Your task to perform on an android device: turn vacation reply on in the gmail app Image 0: 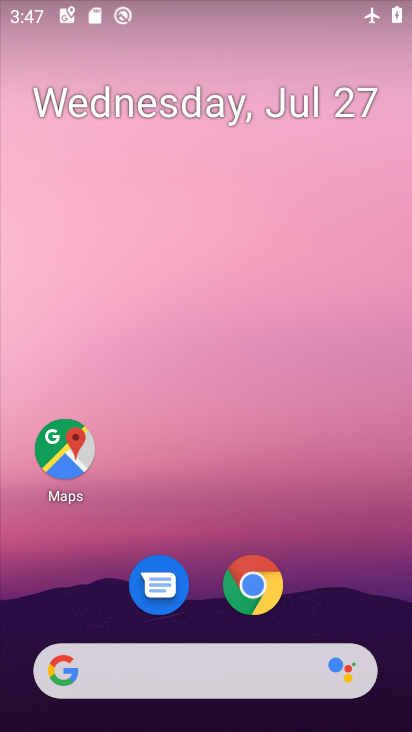
Step 0: drag from (326, 575) to (314, 365)
Your task to perform on an android device: turn vacation reply on in the gmail app Image 1: 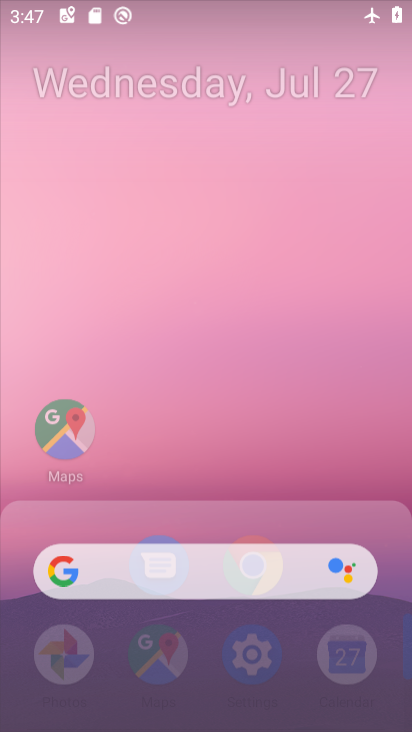
Step 1: drag from (329, 66) to (273, 13)
Your task to perform on an android device: turn vacation reply on in the gmail app Image 2: 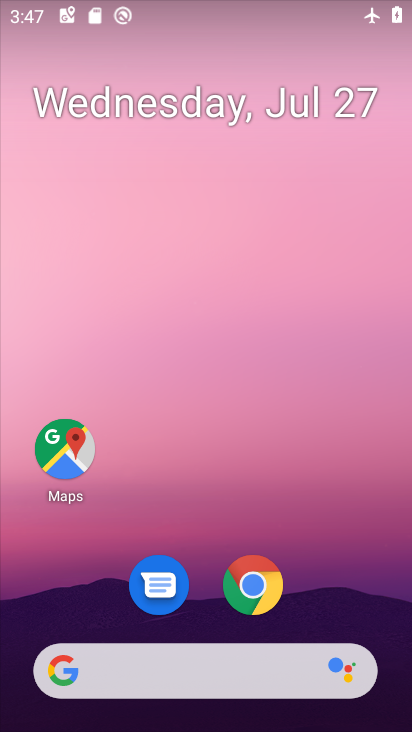
Step 2: drag from (284, 481) to (328, 32)
Your task to perform on an android device: turn vacation reply on in the gmail app Image 3: 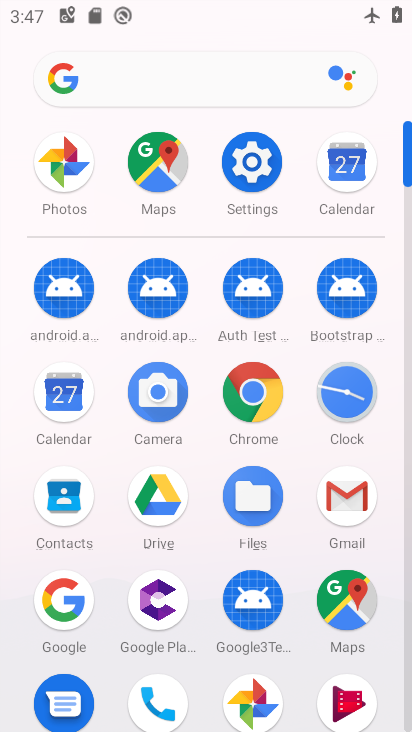
Step 3: click (347, 498)
Your task to perform on an android device: turn vacation reply on in the gmail app Image 4: 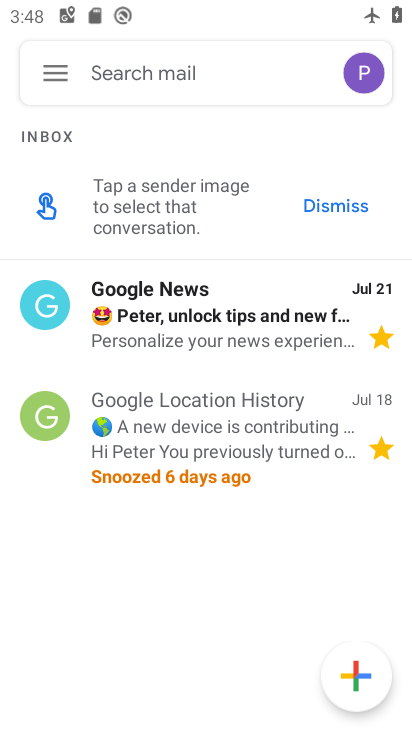
Step 4: click (59, 72)
Your task to perform on an android device: turn vacation reply on in the gmail app Image 5: 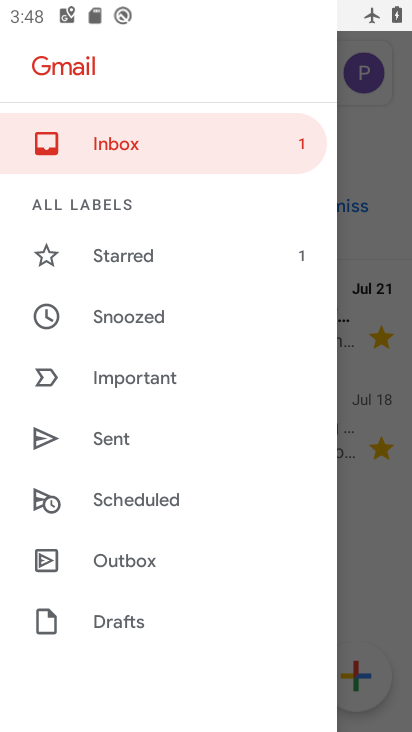
Step 5: drag from (160, 532) to (203, 72)
Your task to perform on an android device: turn vacation reply on in the gmail app Image 6: 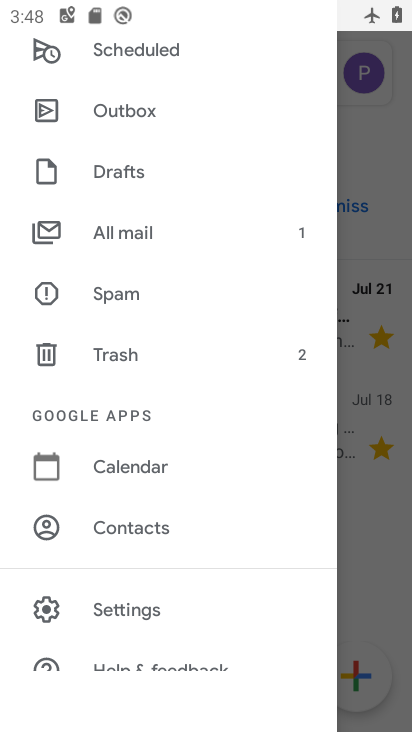
Step 6: click (151, 612)
Your task to perform on an android device: turn vacation reply on in the gmail app Image 7: 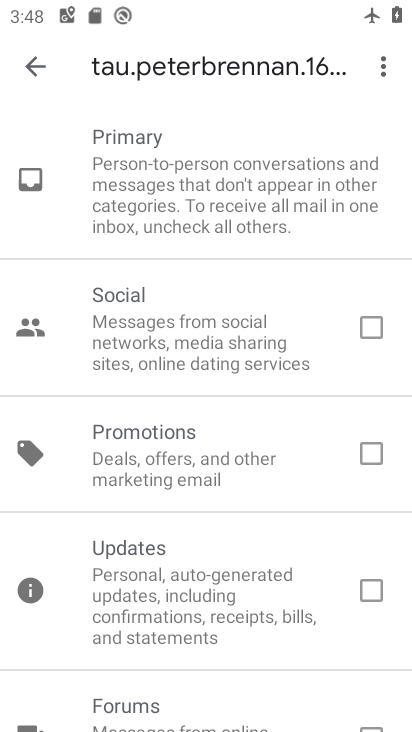
Step 7: click (42, 66)
Your task to perform on an android device: turn vacation reply on in the gmail app Image 8: 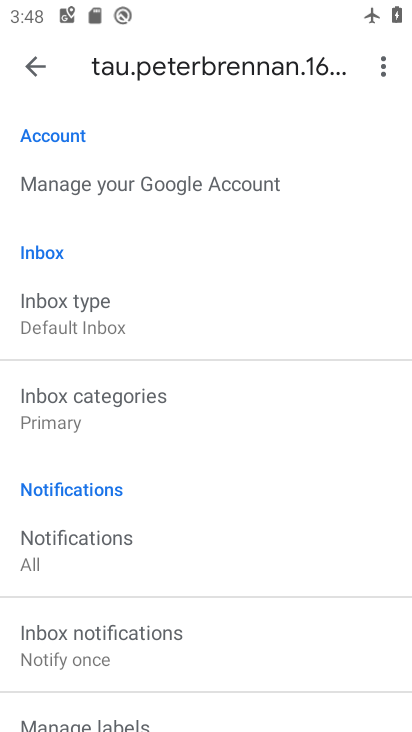
Step 8: drag from (256, 569) to (271, 228)
Your task to perform on an android device: turn vacation reply on in the gmail app Image 9: 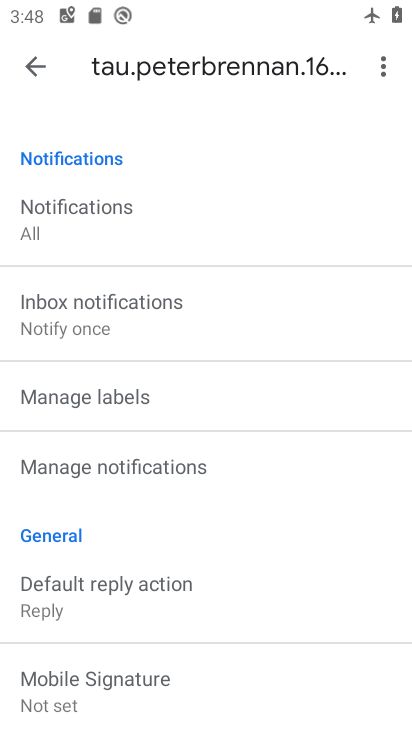
Step 9: drag from (255, 610) to (256, 92)
Your task to perform on an android device: turn vacation reply on in the gmail app Image 10: 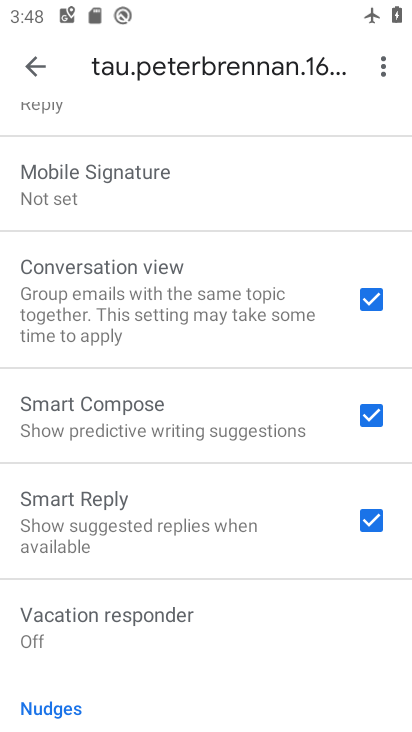
Step 10: click (210, 629)
Your task to perform on an android device: turn vacation reply on in the gmail app Image 11: 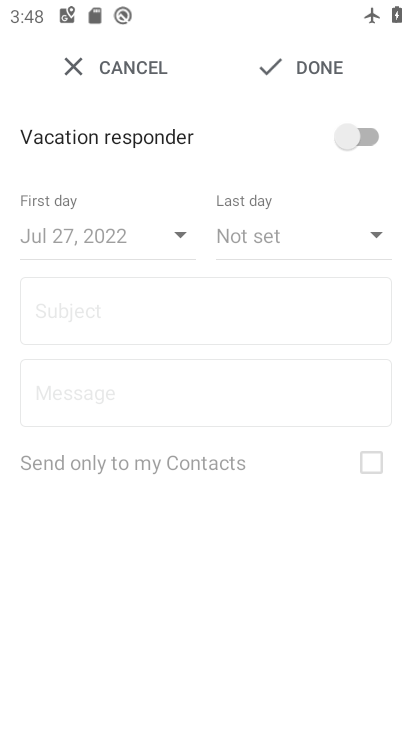
Step 11: click (350, 131)
Your task to perform on an android device: turn vacation reply on in the gmail app Image 12: 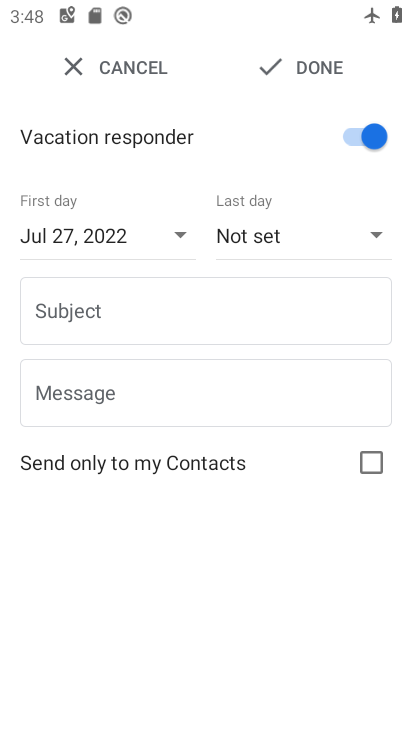
Step 12: task complete